Your task to perform on an android device: Go to Wikipedia Image 0: 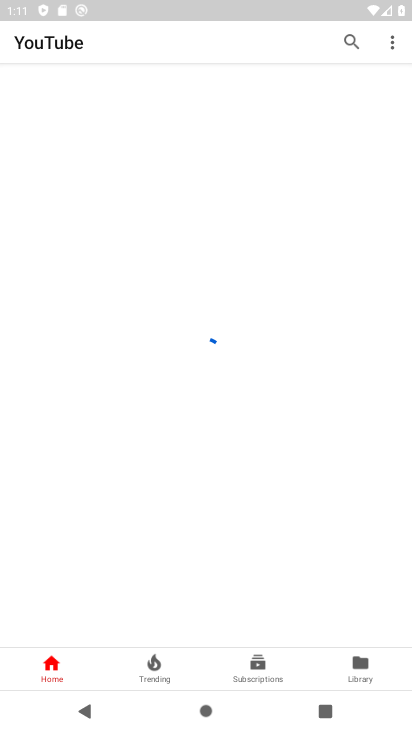
Step 0: press home button
Your task to perform on an android device: Go to Wikipedia Image 1: 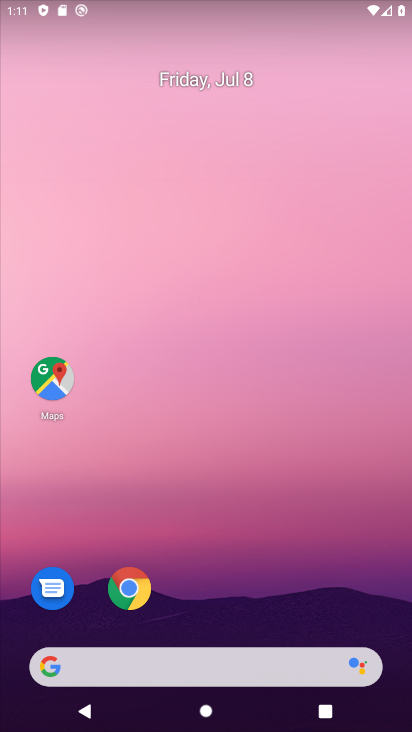
Step 1: drag from (141, 642) to (243, 169)
Your task to perform on an android device: Go to Wikipedia Image 2: 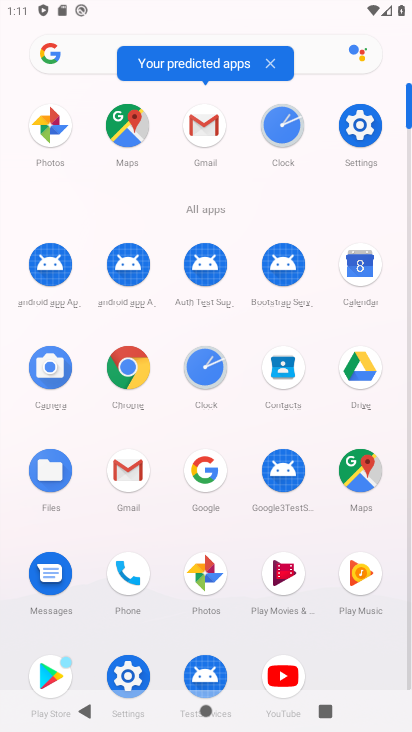
Step 2: click (126, 387)
Your task to perform on an android device: Go to Wikipedia Image 3: 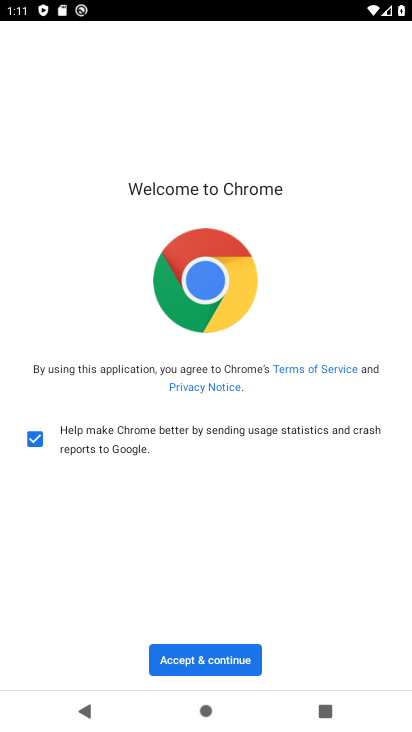
Step 3: click (216, 654)
Your task to perform on an android device: Go to Wikipedia Image 4: 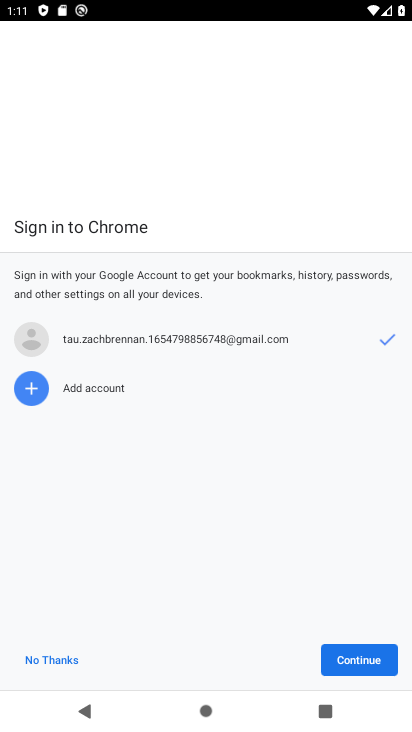
Step 4: click (358, 658)
Your task to perform on an android device: Go to Wikipedia Image 5: 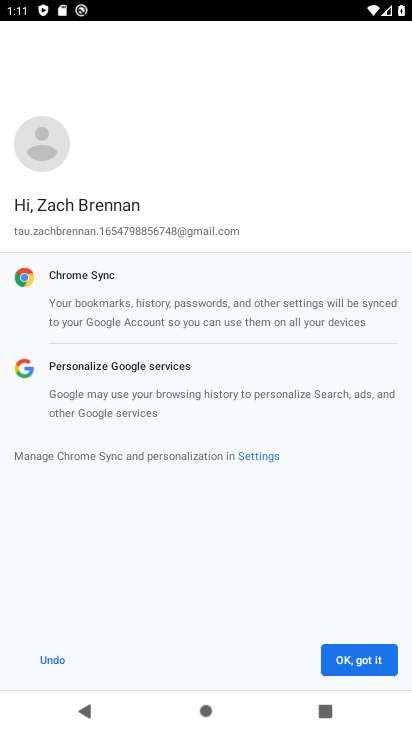
Step 5: click (358, 658)
Your task to perform on an android device: Go to Wikipedia Image 6: 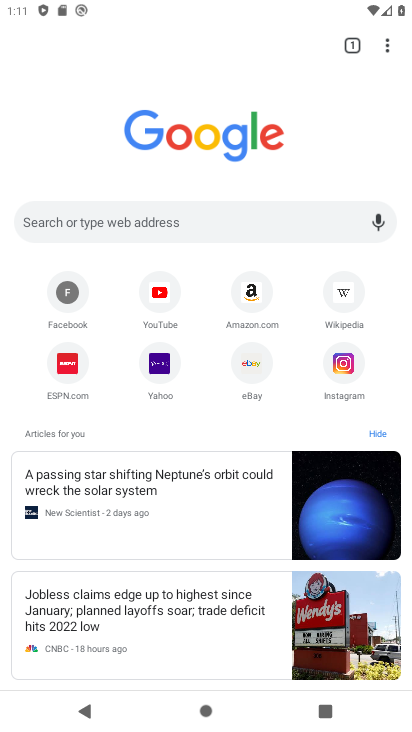
Step 6: click (350, 302)
Your task to perform on an android device: Go to Wikipedia Image 7: 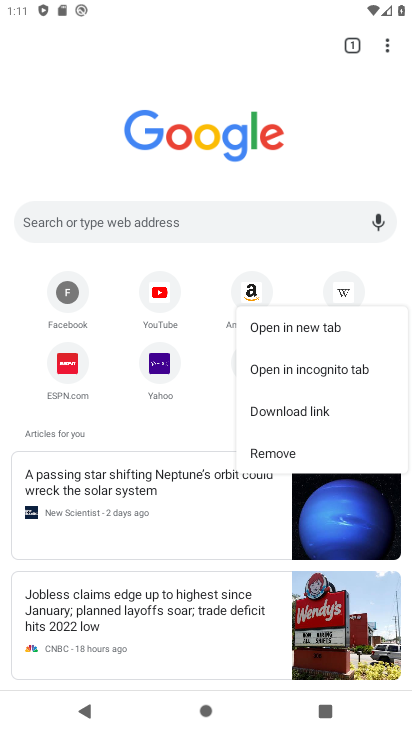
Step 7: click (347, 291)
Your task to perform on an android device: Go to Wikipedia Image 8: 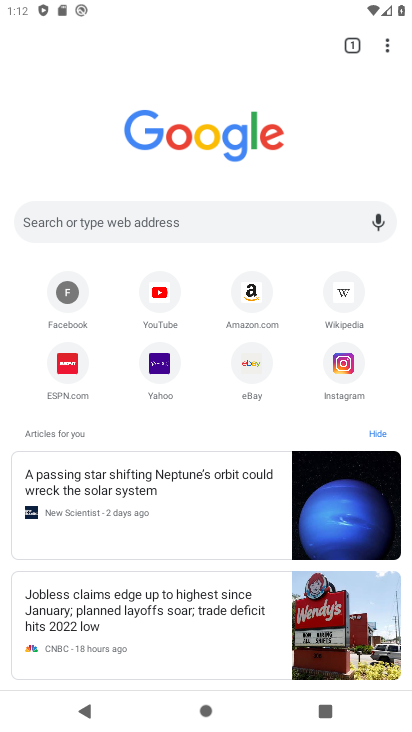
Step 8: click (358, 290)
Your task to perform on an android device: Go to Wikipedia Image 9: 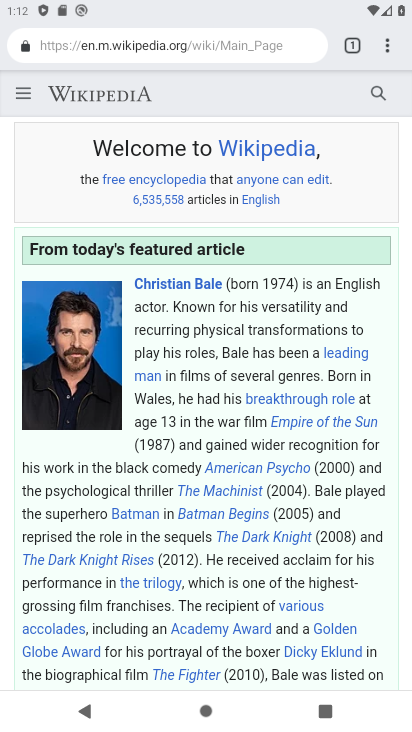
Step 9: task complete